Your task to perform on an android device: make emails show in primary in the gmail app Image 0: 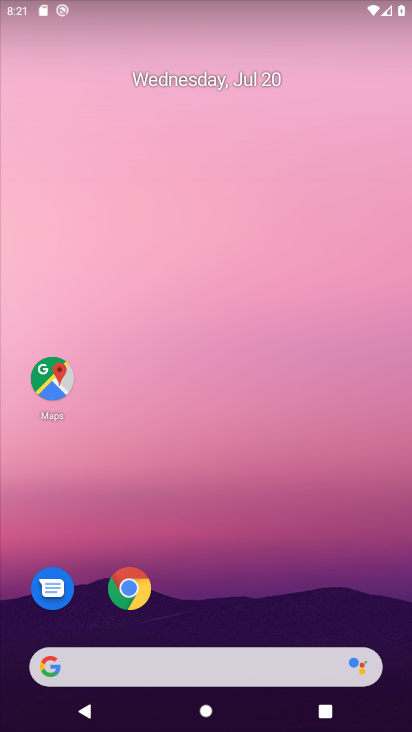
Step 0: drag from (233, 628) to (238, 53)
Your task to perform on an android device: make emails show in primary in the gmail app Image 1: 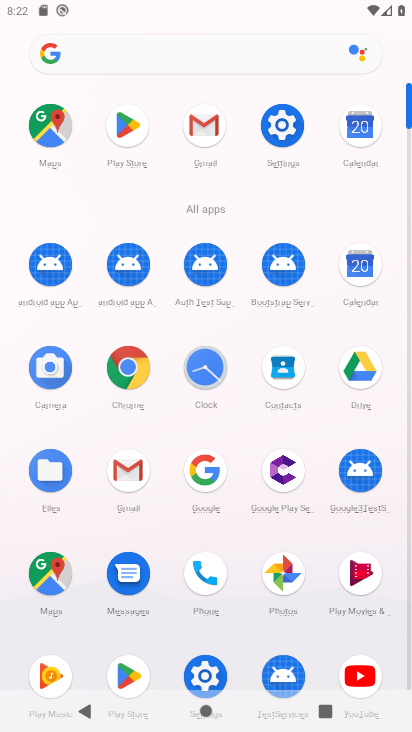
Step 1: click (126, 461)
Your task to perform on an android device: make emails show in primary in the gmail app Image 2: 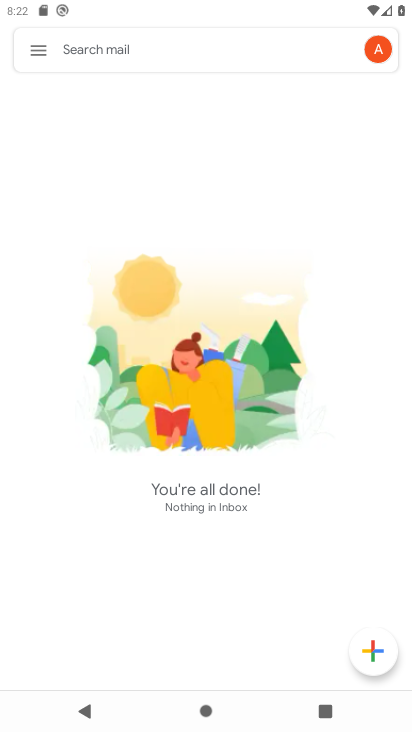
Step 2: click (26, 50)
Your task to perform on an android device: make emails show in primary in the gmail app Image 3: 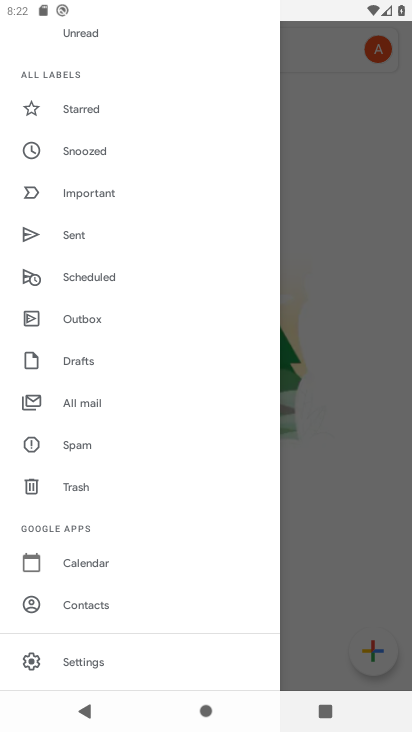
Step 3: click (107, 656)
Your task to perform on an android device: make emails show in primary in the gmail app Image 4: 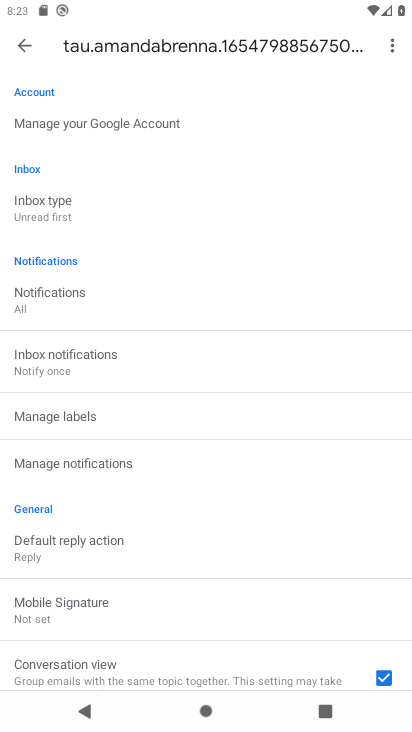
Step 4: click (53, 210)
Your task to perform on an android device: make emails show in primary in the gmail app Image 5: 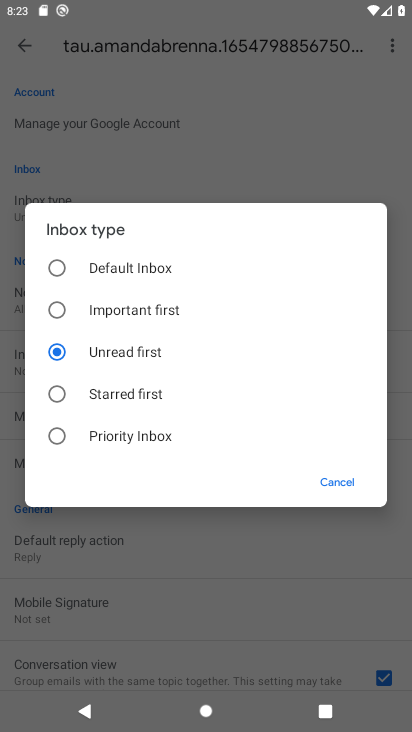
Step 5: click (63, 262)
Your task to perform on an android device: make emails show in primary in the gmail app Image 6: 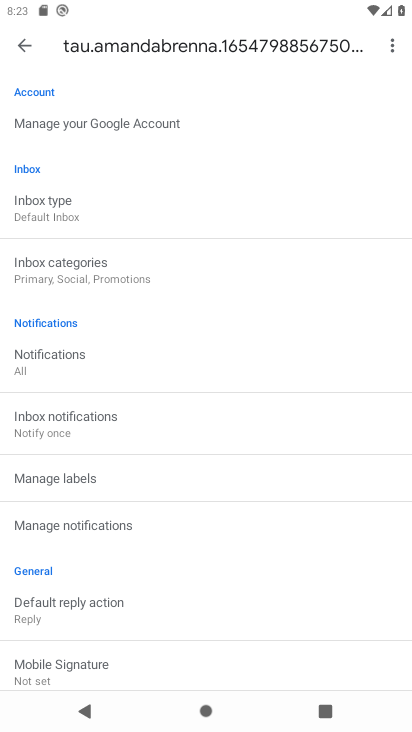
Step 6: task complete